Your task to perform on an android device: move an email to a new category in the gmail app Image 0: 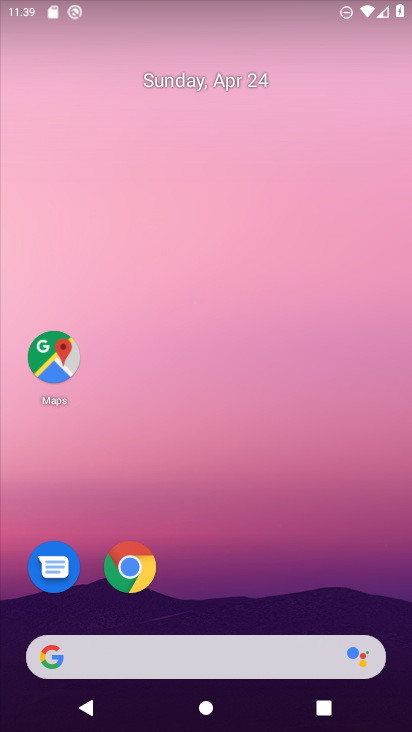
Step 0: drag from (227, 709) to (234, 227)
Your task to perform on an android device: move an email to a new category in the gmail app Image 1: 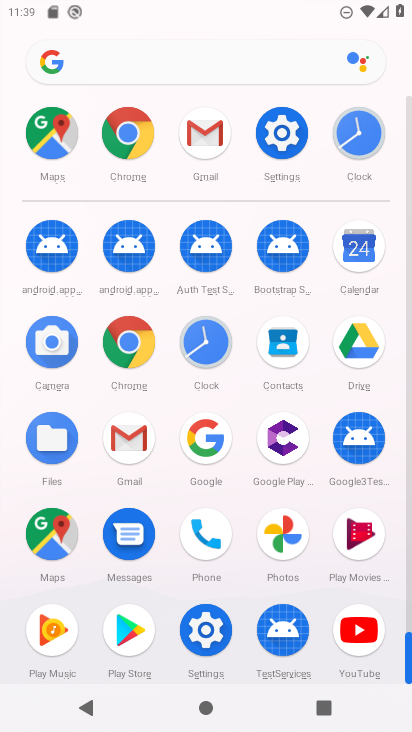
Step 1: click (133, 442)
Your task to perform on an android device: move an email to a new category in the gmail app Image 2: 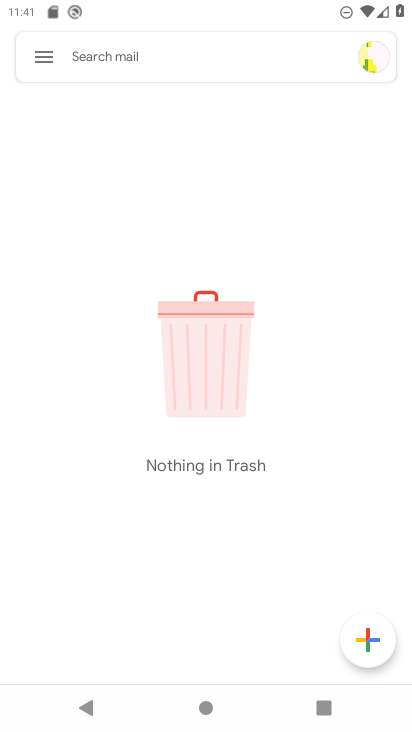
Step 2: task complete